Your task to perform on an android device: delete a single message in the gmail app Image 0: 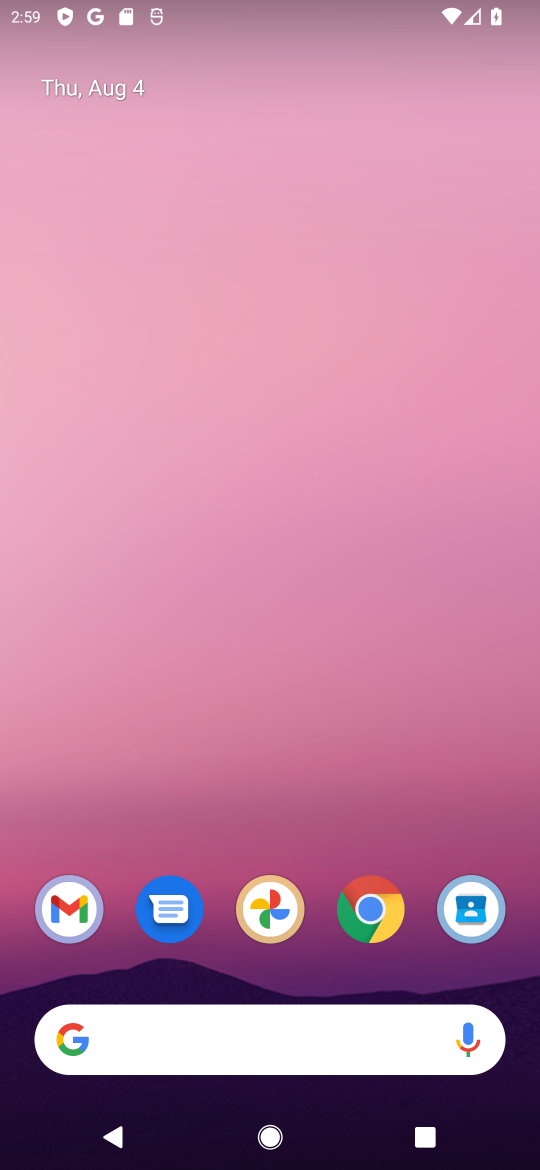
Step 0: click (76, 924)
Your task to perform on an android device: delete a single message in the gmail app Image 1: 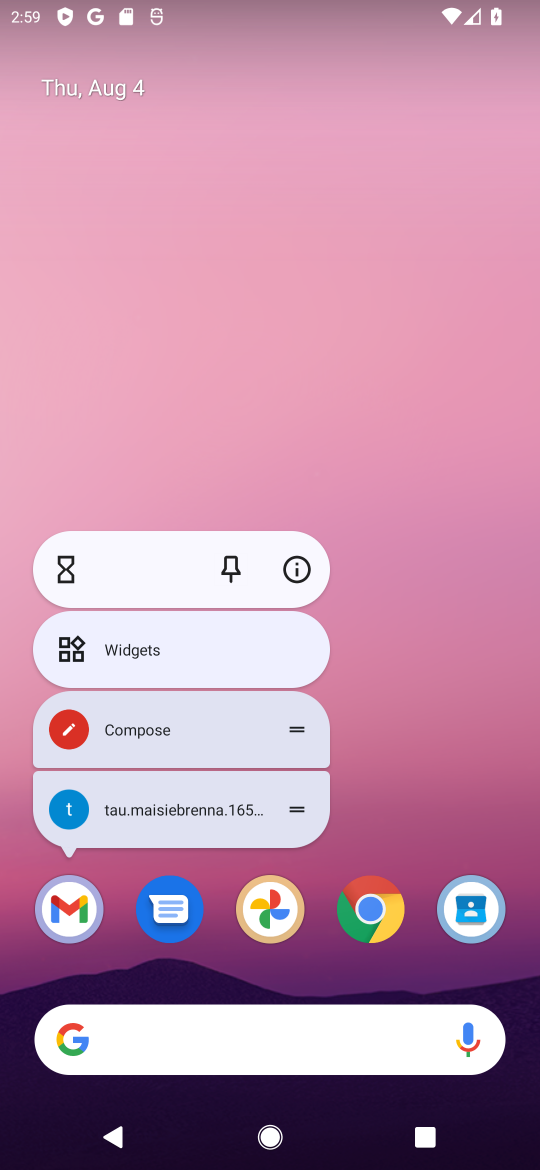
Step 1: click (70, 909)
Your task to perform on an android device: delete a single message in the gmail app Image 2: 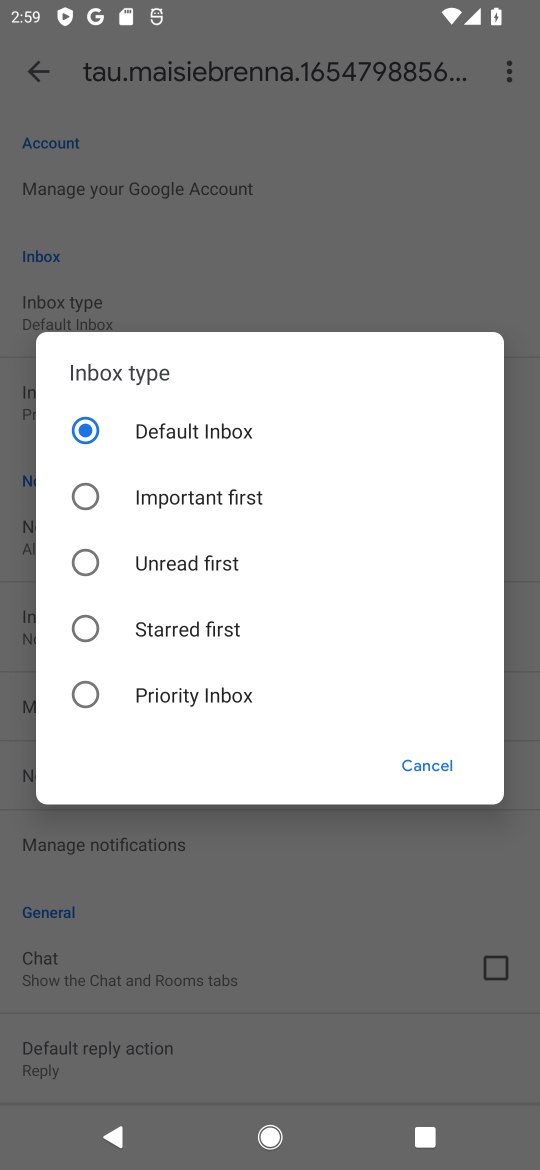
Step 2: click (420, 779)
Your task to perform on an android device: delete a single message in the gmail app Image 3: 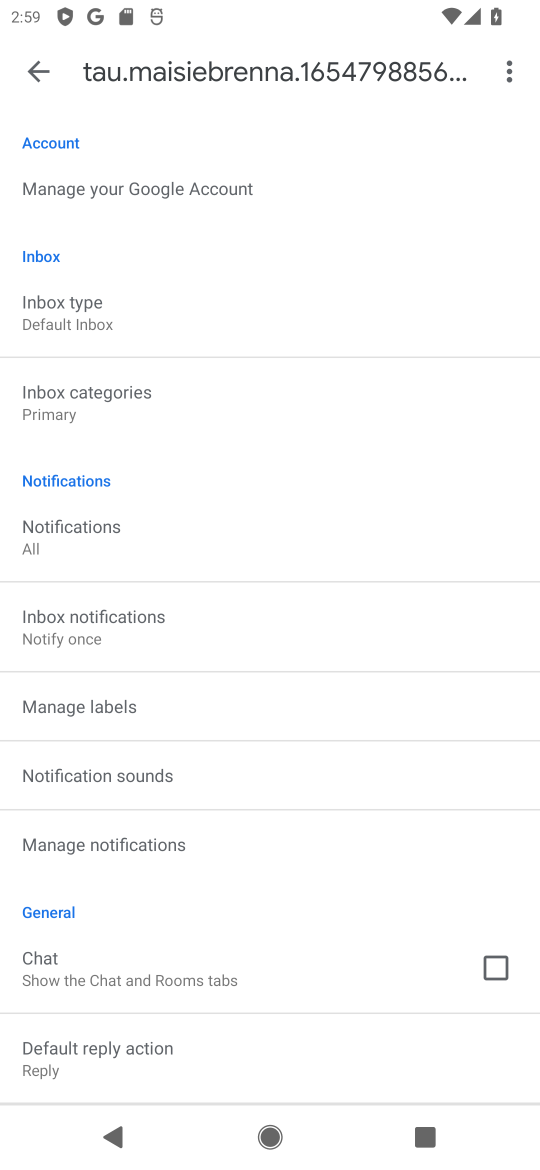
Step 3: click (31, 75)
Your task to perform on an android device: delete a single message in the gmail app Image 4: 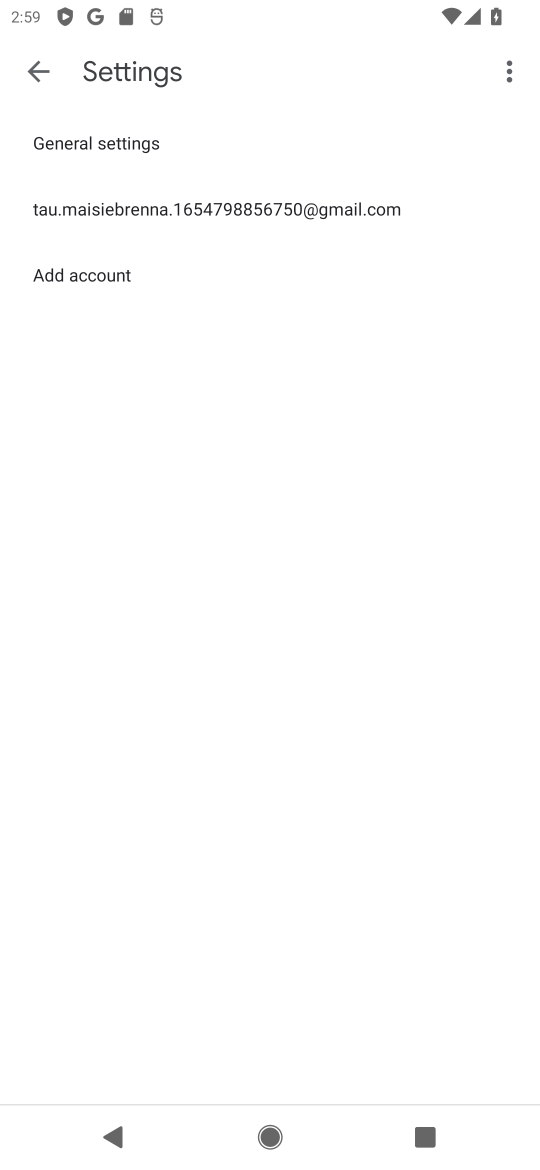
Step 4: click (36, 71)
Your task to perform on an android device: delete a single message in the gmail app Image 5: 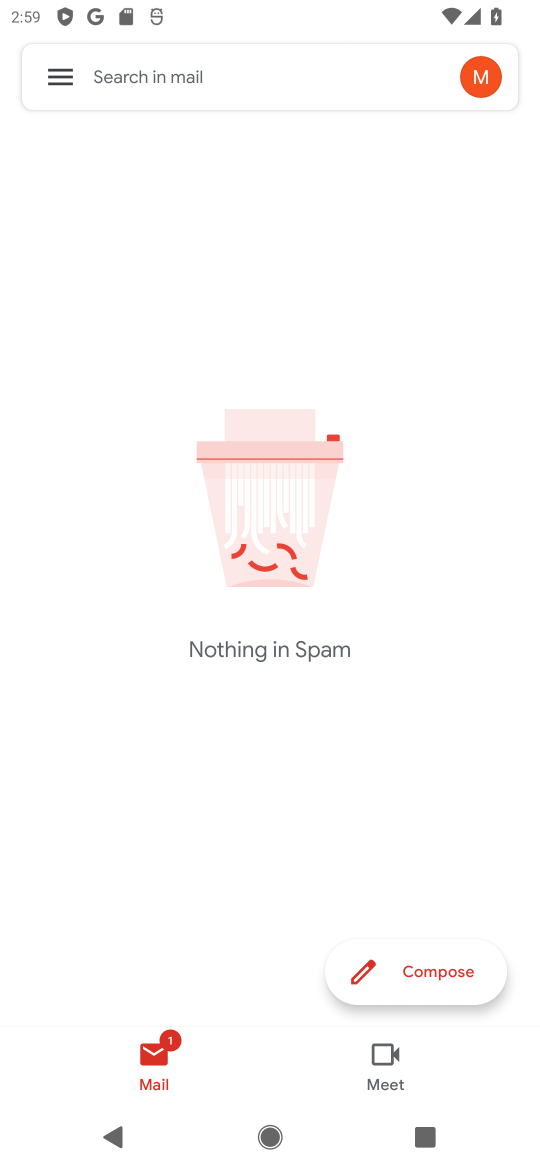
Step 5: click (67, 78)
Your task to perform on an android device: delete a single message in the gmail app Image 6: 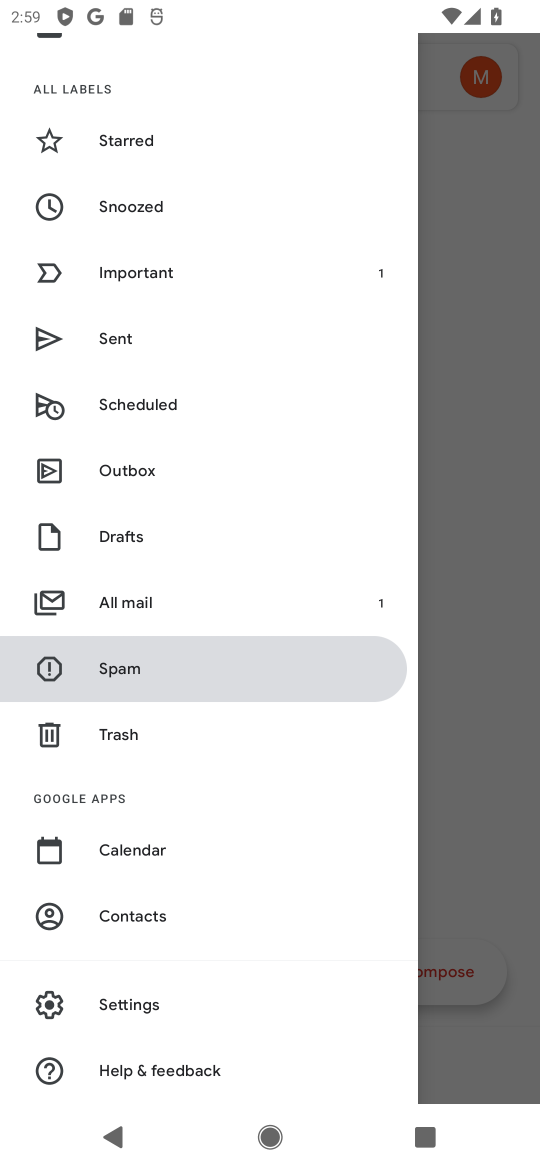
Step 6: click (222, 591)
Your task to perform on an android device: delete a single message in the gmail app Image 7: 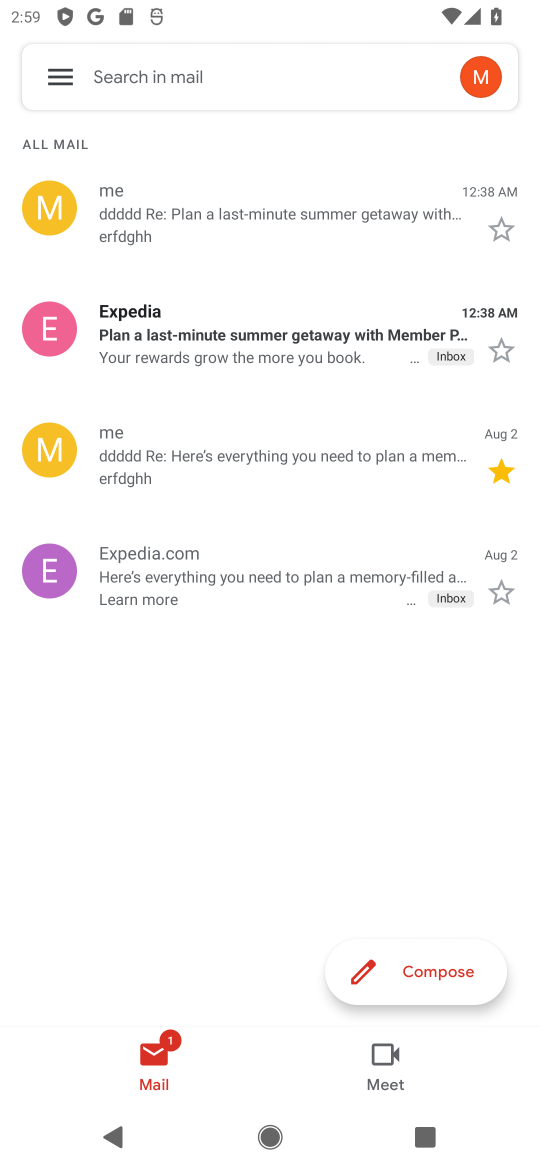
Step 7: click (54, 218)
Your task to perform on an android device: delete a single message in the gmail app Image 8: 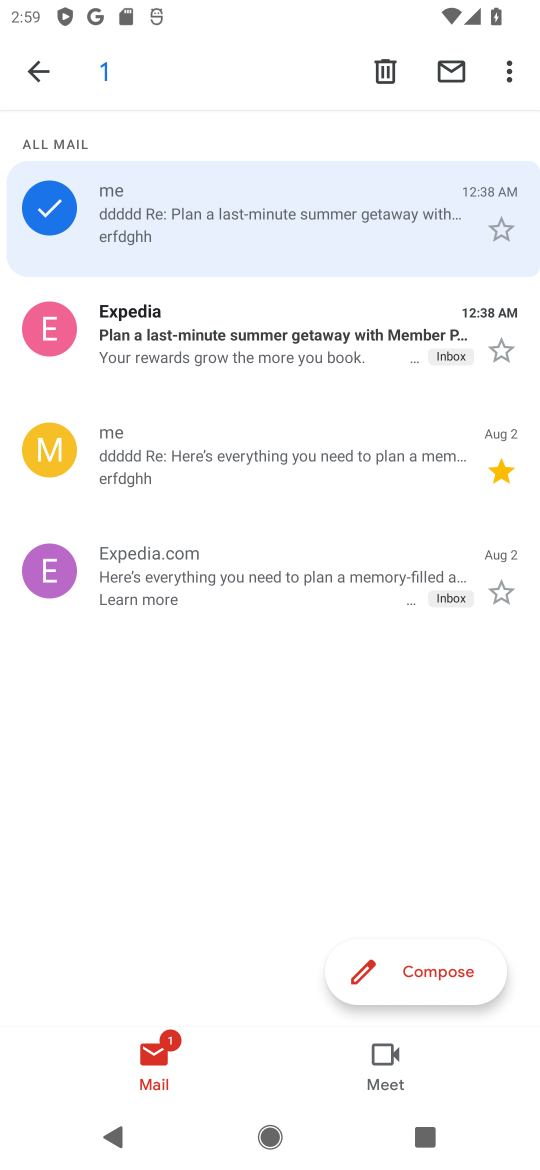
Step 8: click (386, 62)
Your task to perform on an android device: delete a single message in the gmail app Image 9: 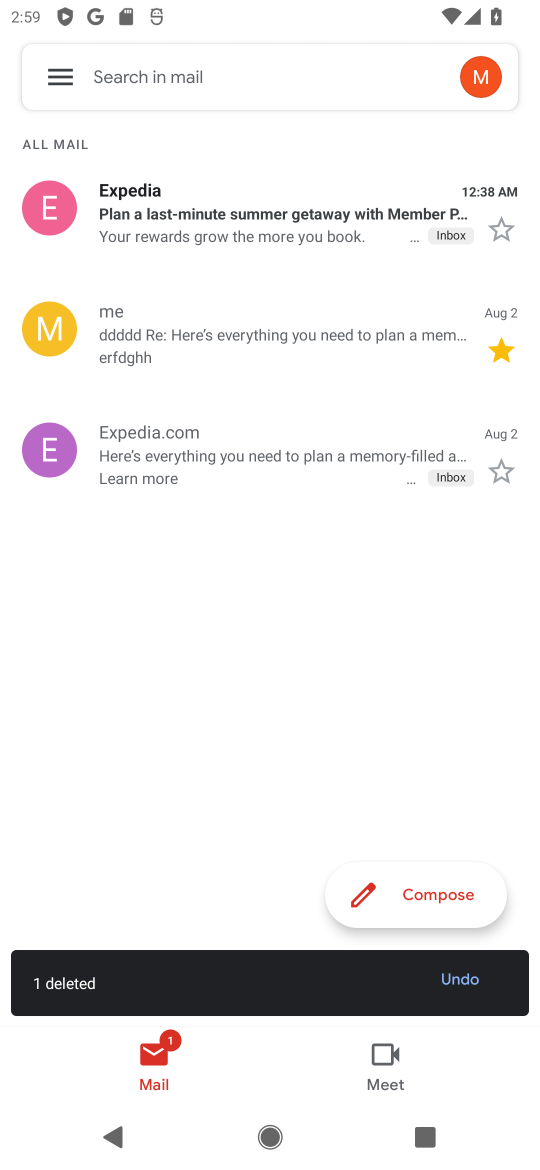
Step 9: task complete